Your task to perform on an android device: Turn off the flashlight Image 0: 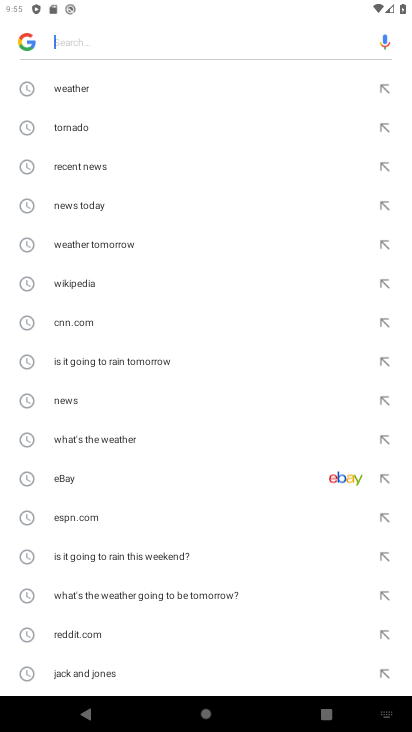
Step 0: press back button
Your task to perform on an android device: Turn off the flashlight Image 1: 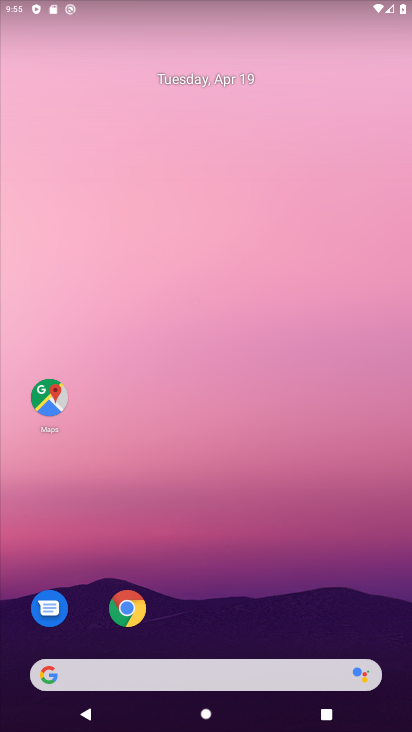
Step 1: drag from (333, 411) to (332, 52)
Your task to perform on an android device: Turn off the flashlight Image 2: 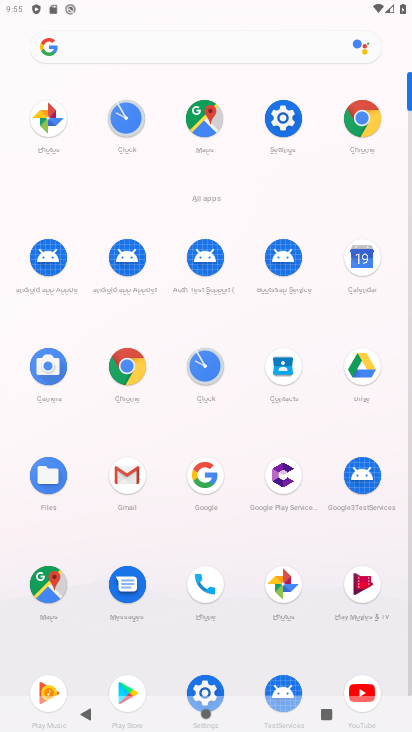
Step 2: click (284, 111)
Your task to perform on an android device: Turn off the flashlight Image 3: 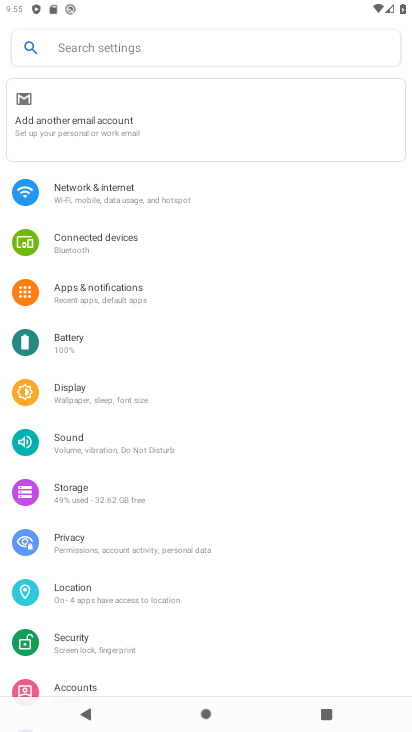
Step 3: click (76, 394)
Your task to perform on an android device: Turn off the flashlight Image 4: 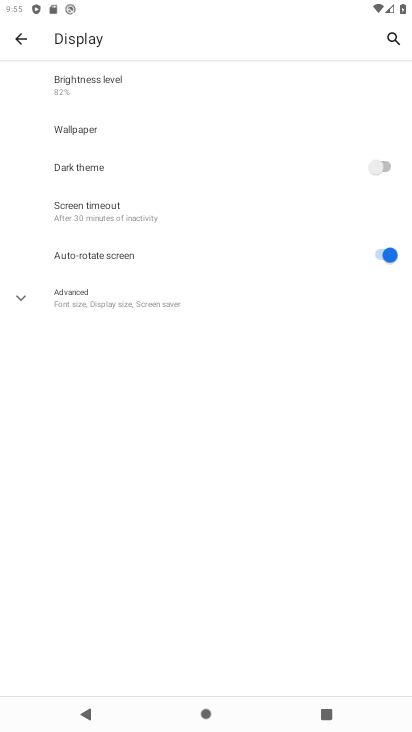
Step 4: task complete